Your task to perform on an android device: change the clock display to analog Image 0: 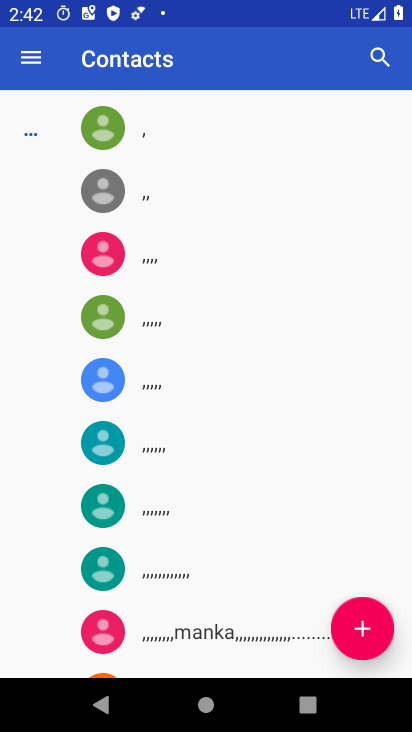
Step 0: drag from (207, 630) to (220, 388)
Your task to perform on an android device: change the clock display to analog Image 1: 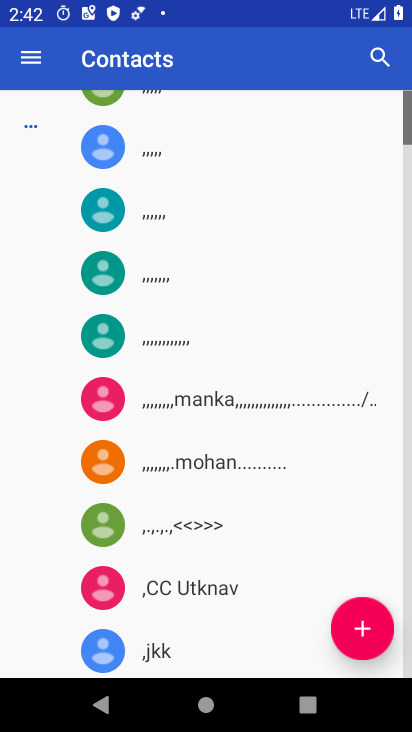
Step 1: press home button
Your task to perform on an android device: change the clock display to analog Image 2: 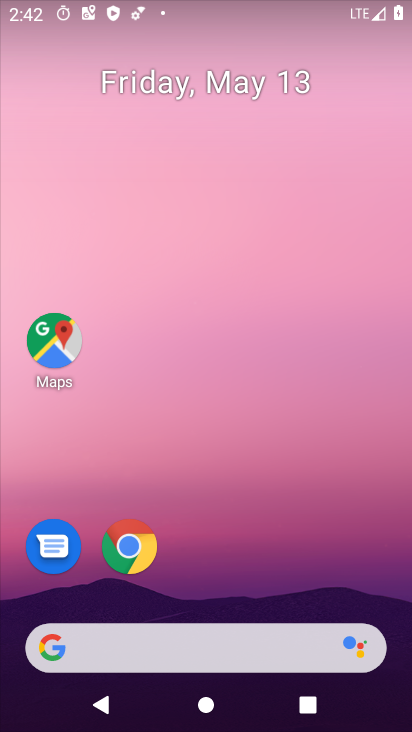
Step 2: drag from (222, 614) to (294, 18)
Your task to perform on an android device: change the clock display to analog Image 3: 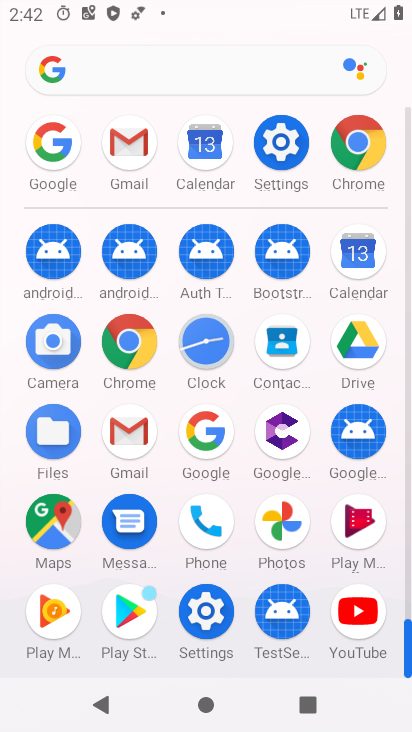
Step 3: click (199, 348)
Your task to perform on an android device: change the clock display to analog Image 4: 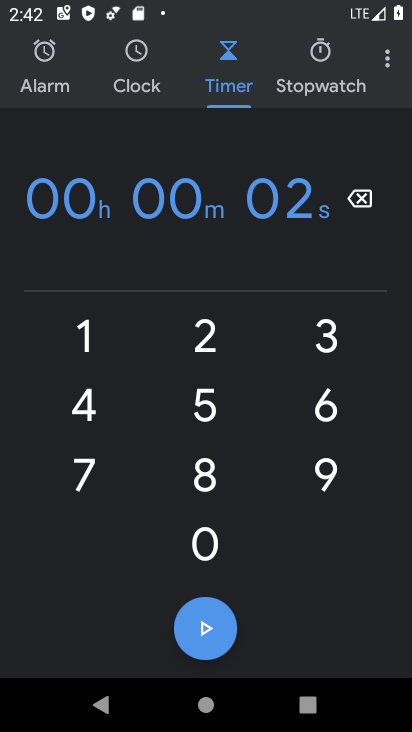
Step 4: click (401, 51)
Your task to perform on an android device: change the clock display to analog Image 5: 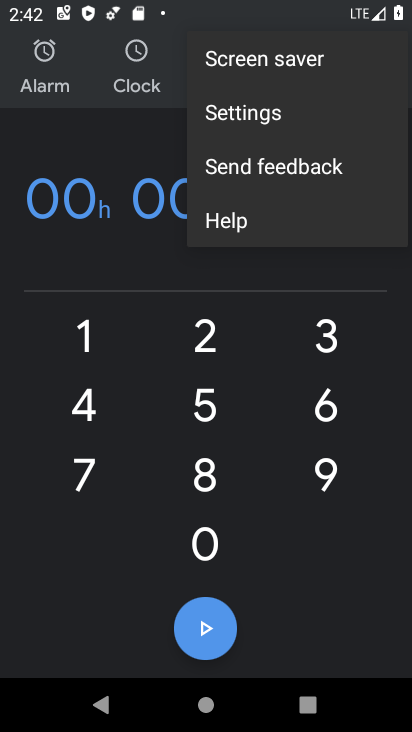
Step 5: click (266, 116)
Your task to perform on an android device: change the clock display to analog Image 6: 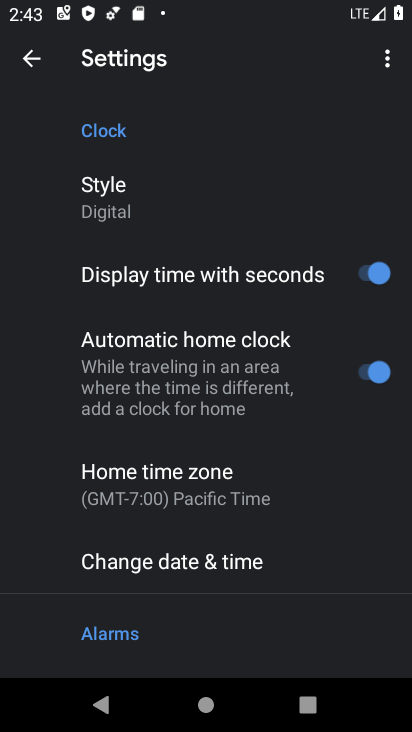
Step 6: click (172, 212)
Your task to perform on an android device: change the clock display to analog Image 7: 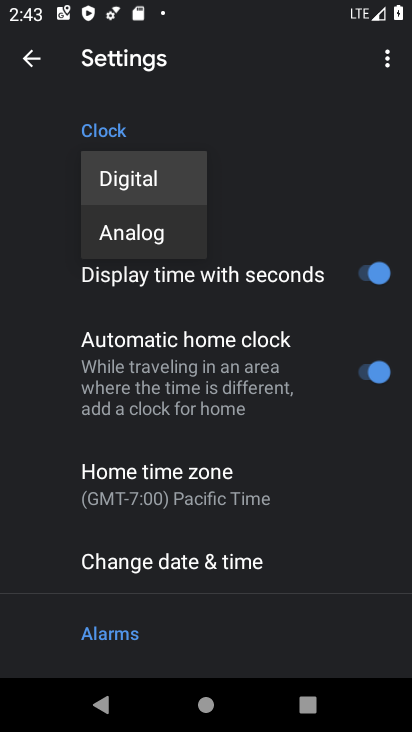
Step 7: click (167, 246)
Your task to perform on an android device: change the clock display to analog Image 8: 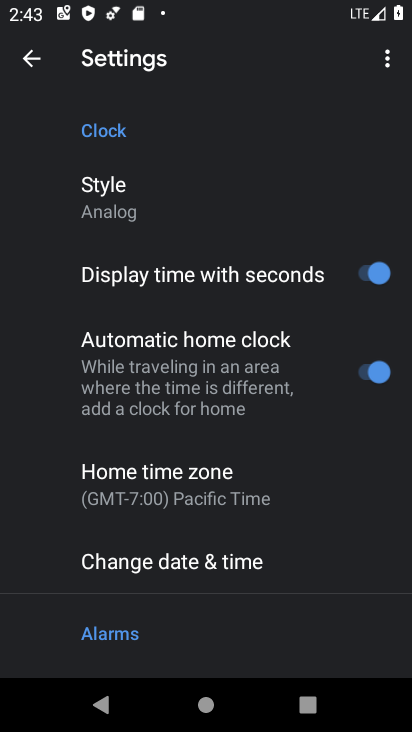
Step 8: task complete